Your task to perform on an android device: search for starred emails in the gmail app Image 0: 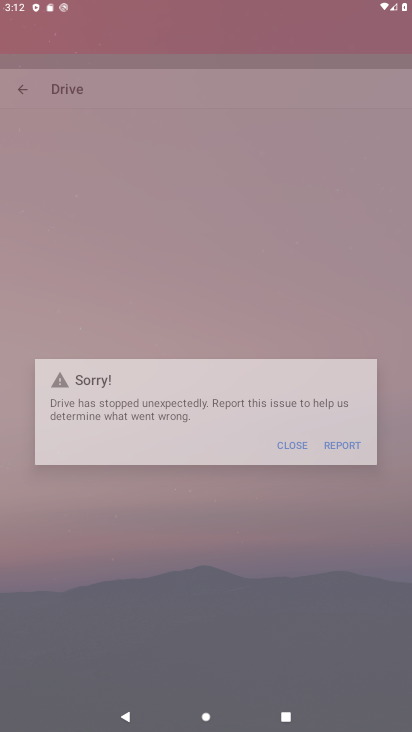
Step 0: click (148, 493)
Your task to perform on an android device: search for starred emails in the gmail app Image 1: 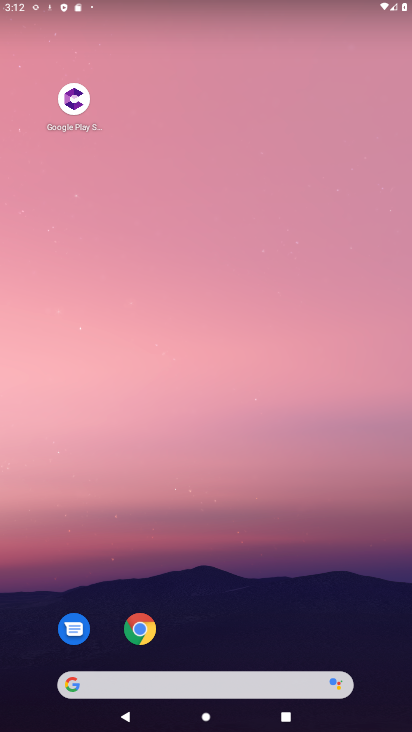
Step 1: drag from (232, 661) to (194, 116)
Your task to perform on an android device: search for starred emails in the gmail app Image 2: 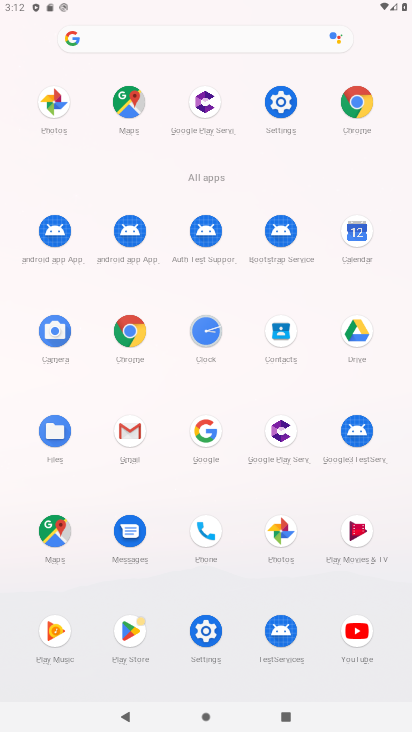
Step 2: click (132, 429)
Your task to perform on an android device: search for starred emails in the gmail app Image 3: 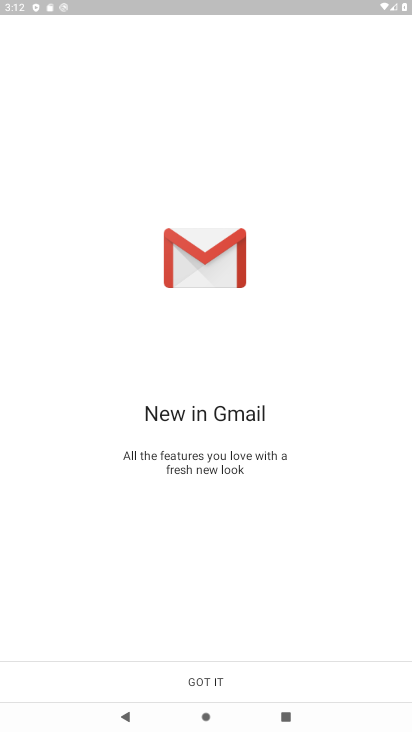
Step 3: click (188, 671)
Your task to perform on an android device: search for starred emails in the gmail app Image 4: 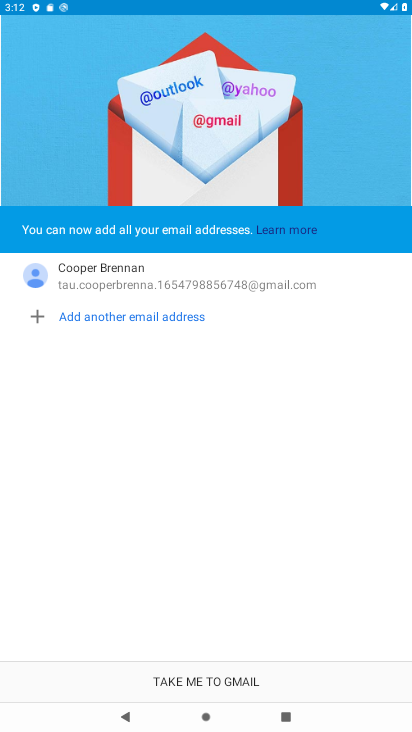
Step 4: click (256, 690)
Your task to perform on an android device: search for starred emails in the gmail app Image 5: 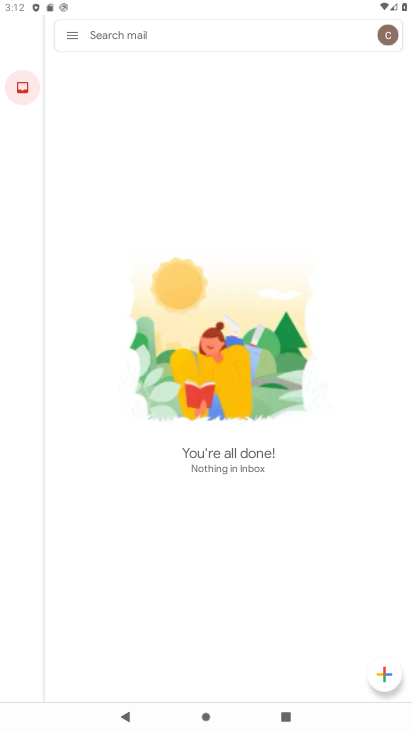
Step 5: click (63, 28)
Your task to perform on an android device: search for starred emails in the gmail app Image 6: 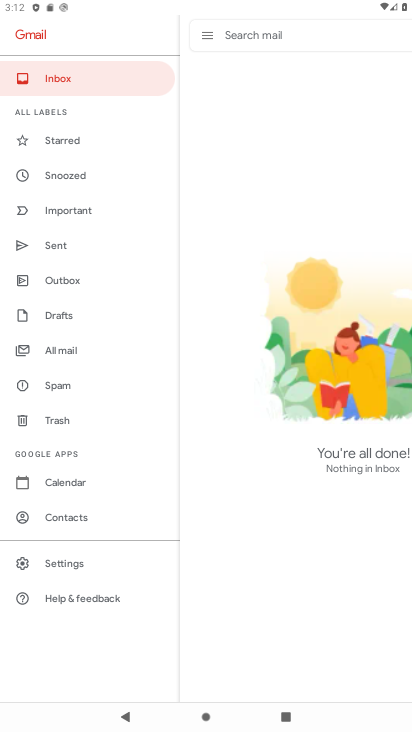
Step 6: click (54, 144)
Your task to perform on an android device: search for starred emails in the gmail app Image 7: 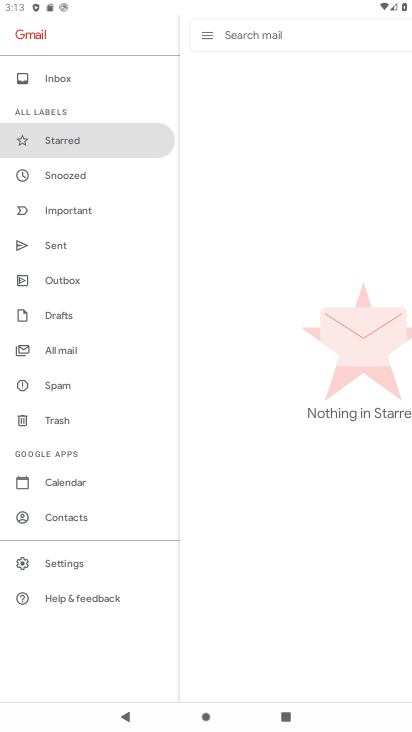
Step 7: task complete